Your task to perform on an android device: turn pop-ups off in chrome Image 0: 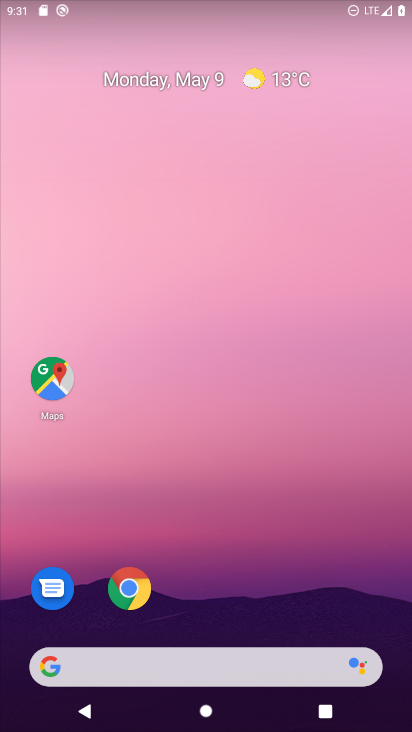
Step 0: click (127, 588)
Your task to perform on an android device: turn pop-ups off in chrome Image 1: 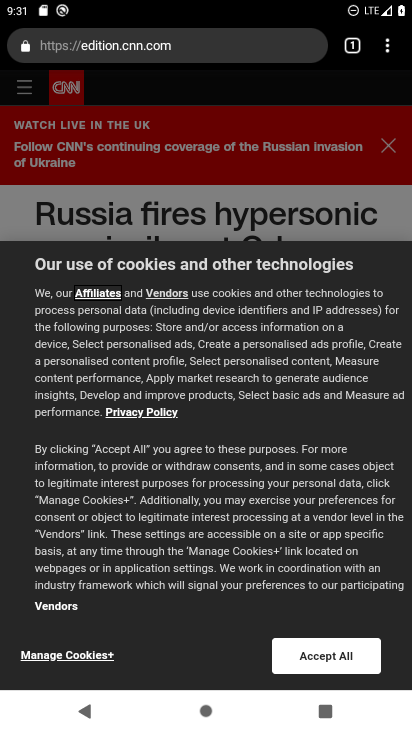
Step 1: click (388, 54)
Your task to perform on an android device: turn pop-ups off in chrome Image 2: 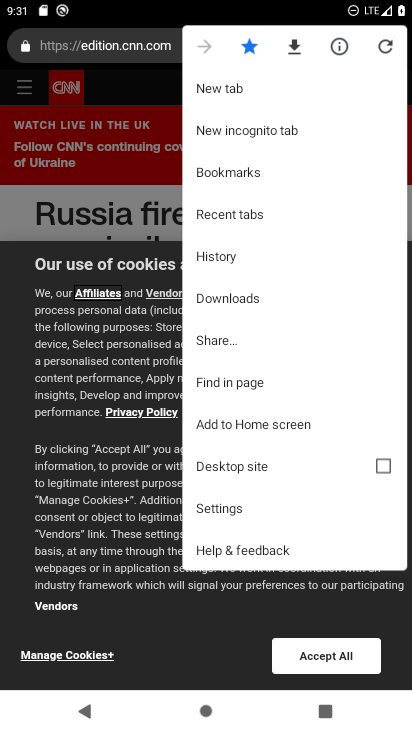
Step 2: click (254, 502)
Your task to perform on an android device: turn pop-ups off in chrome Image 3: 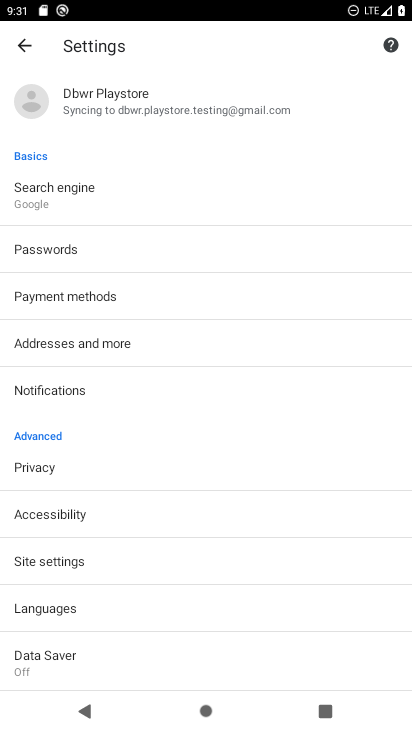
Step 3: click (124, 551)
Your task to perform on an android device: turn pop-ups off in chrome Image 4: 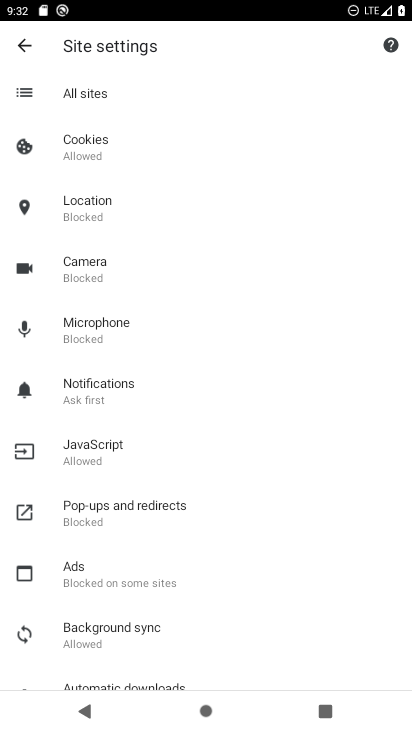
Step 4: click (114, 503)
Your task to perform on an android device: turn pop-ups off in chrome Image 5: 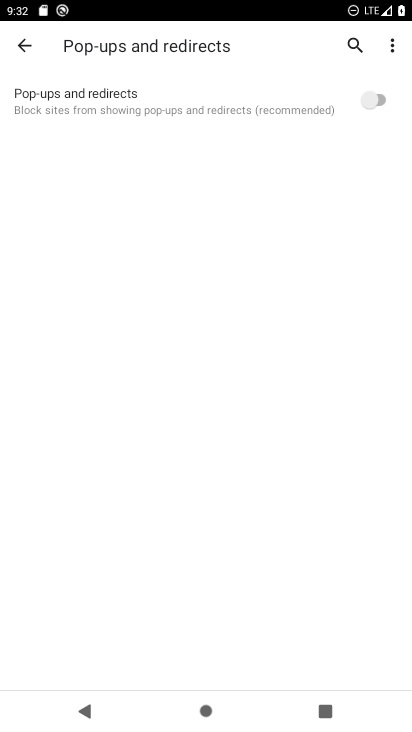
Step 5: click (367, 104)
Your task to perform on an android device: turn pop-ups off in chrome Image 6: 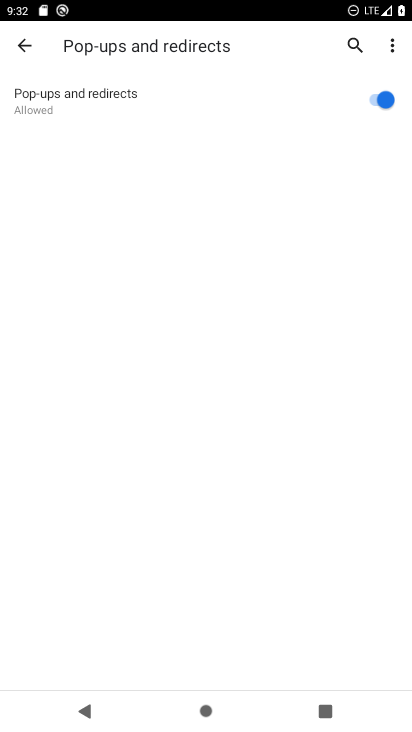
Step 6: task complete